Your task to perform on an android device: Go to Reddit.com Image 0: 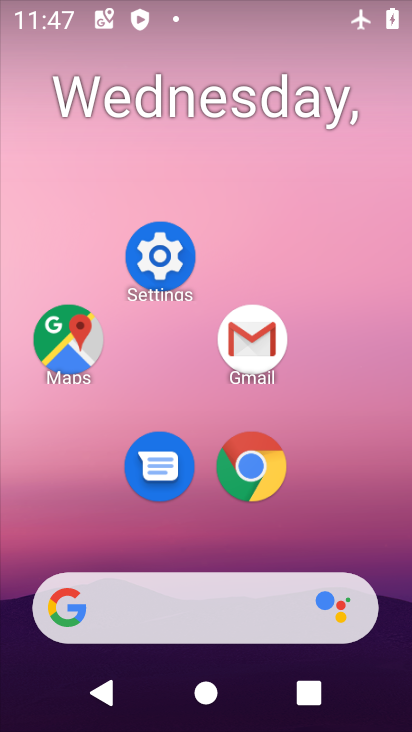
Step 0: drag from (203, 539) to (216, 215)
Your task to perform on an android device: Go to Reddit.com Image 1: 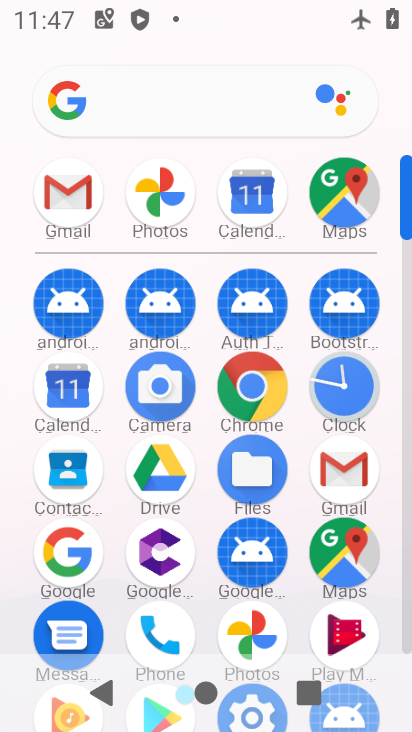
Step 1: click (172, 90)
Your task to perform on an android device: Go to Reddit.com Image 2: 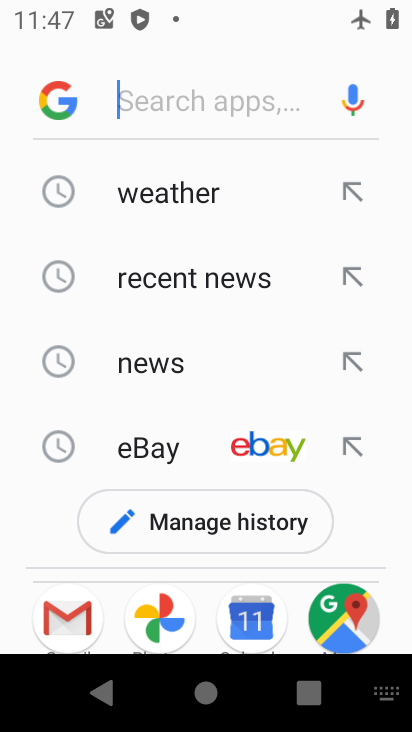
Step 2: type "reddit.com"
Your task to perform on an android device: Go to Reddit.com Image 3: 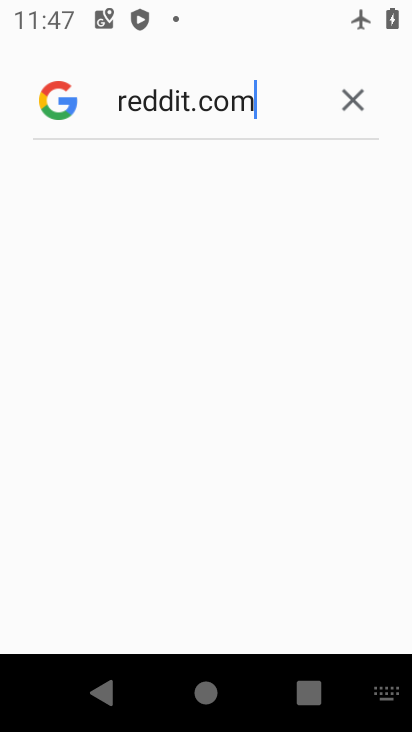
Step 3: task complete